Your task to perform on an android device: What's the weather today? Image 0: 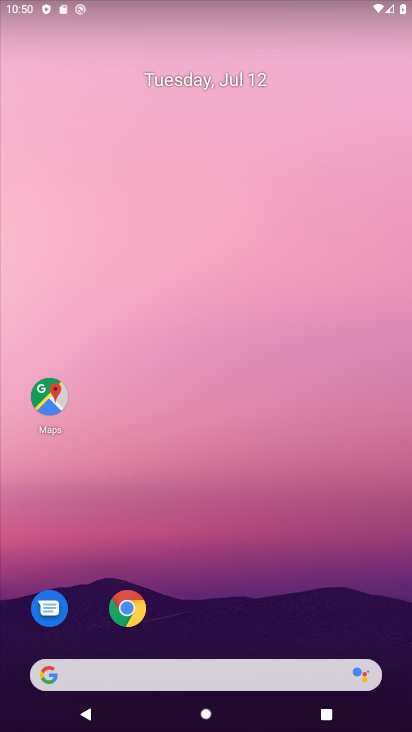
Step 0: click (221, 674)
Your task to perform on an android device: What's the weather today? Image 1: 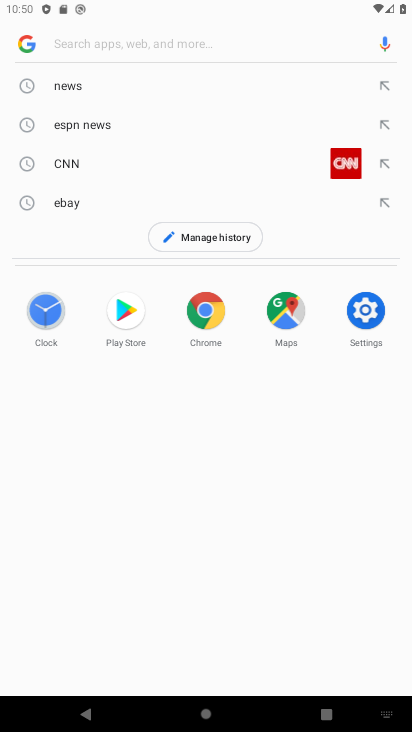
Step 1: type "weather"
Your task to perform on an android device: What's the weather today? Image 2: 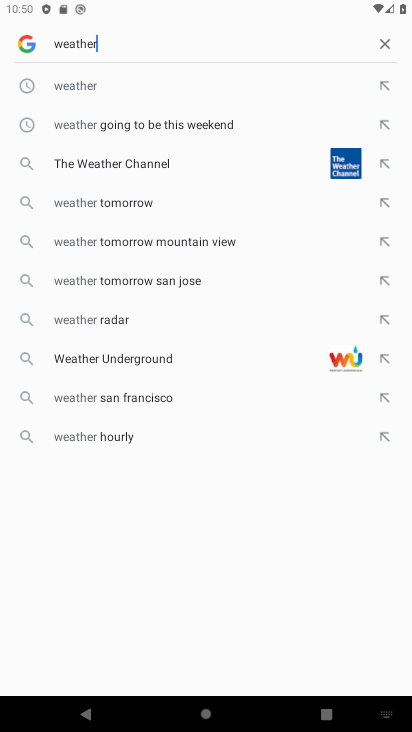
Step 2: click (88, 87)
Your task to perform on an android device: What's the weather today? Image 3: 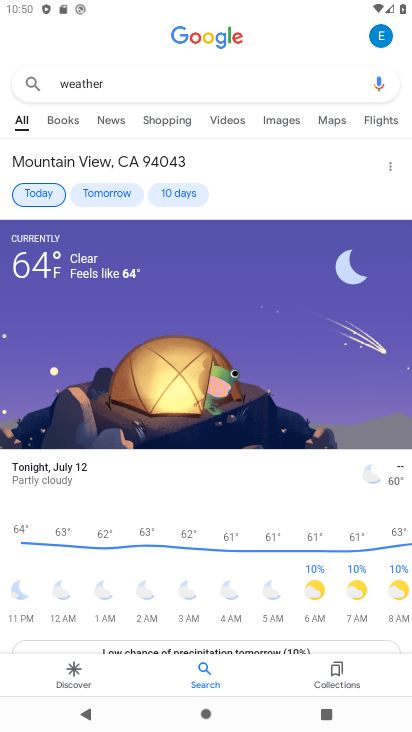
Step 3: task complete